Your task to perform on an android device: Go to Yahoo.com Image 0: 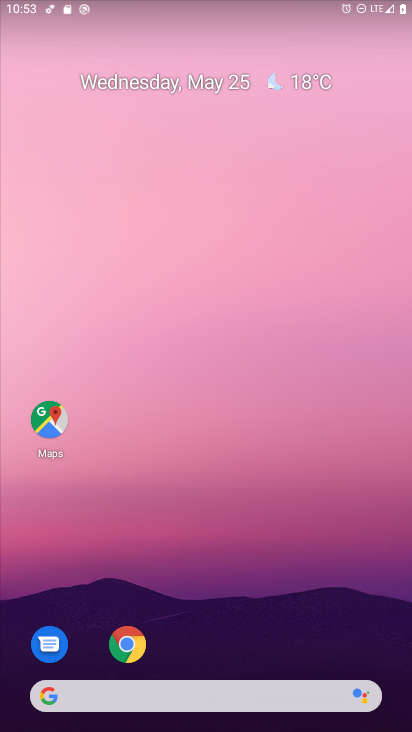
Step 0: click (127, 637)
Your task to perform on an android device: Go to Yahoo.com Image 1: 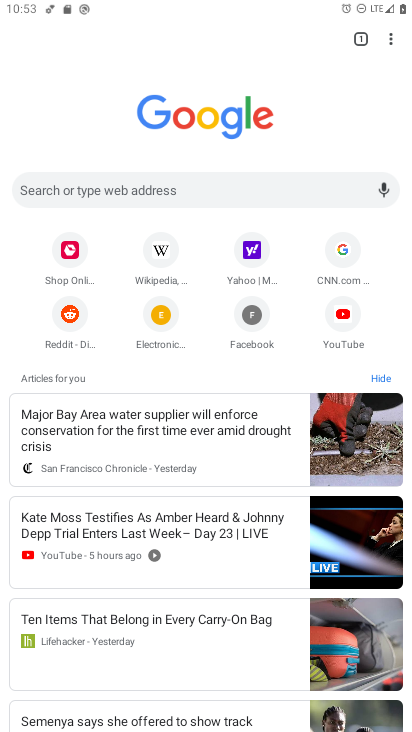
Step 1: click (247, 247)
Your task to perform on an android device: Go to Yahoo.com Image 2: 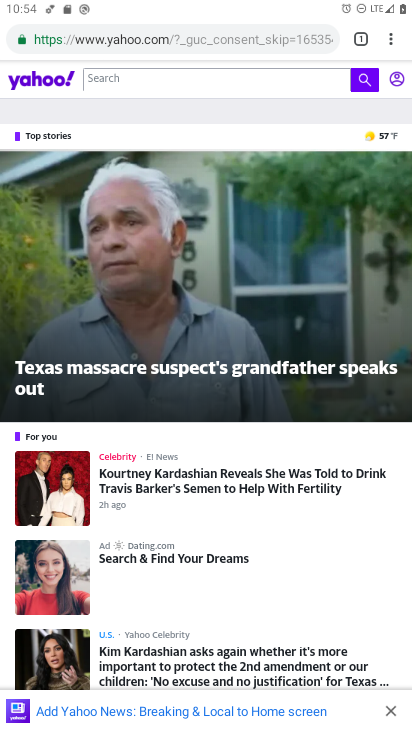
Step 2: task complete